Your task to perform on an android device: turn off sleep mode Image 0: 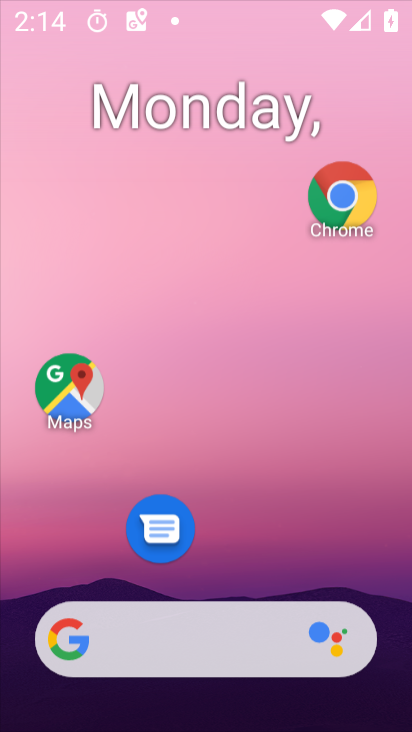
Step 0: press home button
Your task to perform on an android device: turn off sleep mode Image 1: 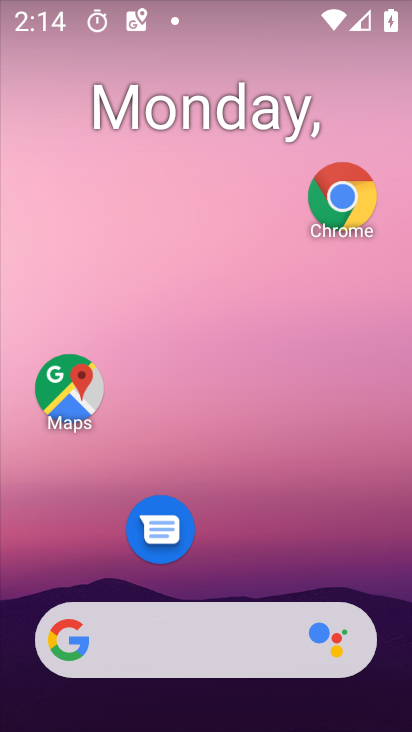
Step 1: drag from (265, 588) to (257, 13)
Your task to perform on an android device: turn off sleep mode Image 2: 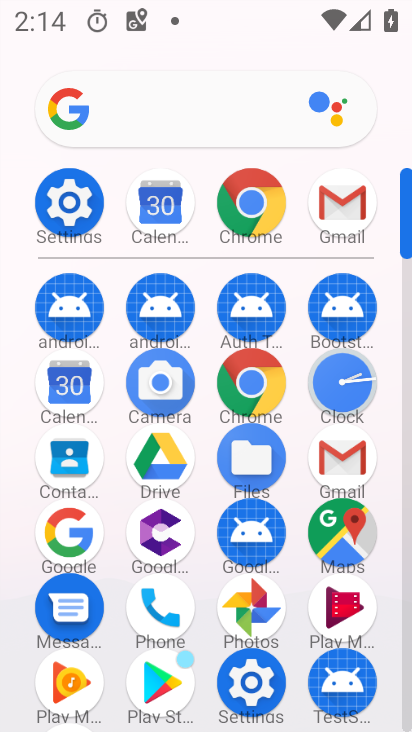
Step 2: click (76, 205)
Your task to perform on an android device: turn off sleep mode Image 3: 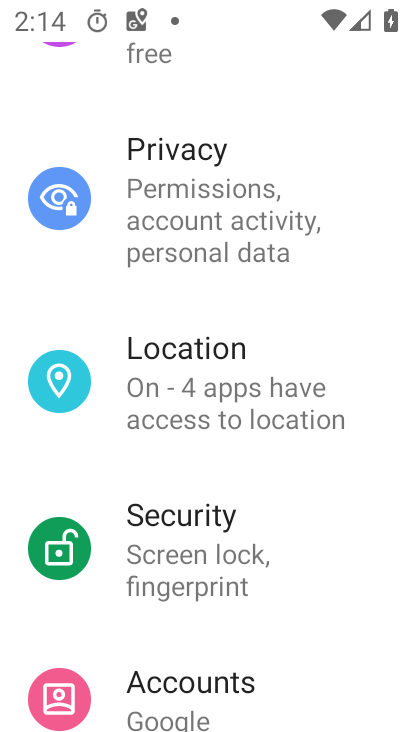
Step 3: drag from (201, 584) to (168, 726)
Your task to perform on an android device: turn off sleep mode Image 4: 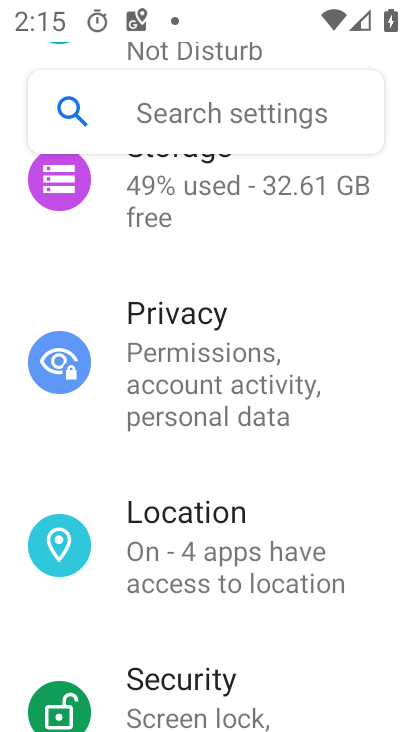
Step 4: drag from (52, 294) to (91, 631)
Your task to perform on an android device: turn off sleep mode Image 5: 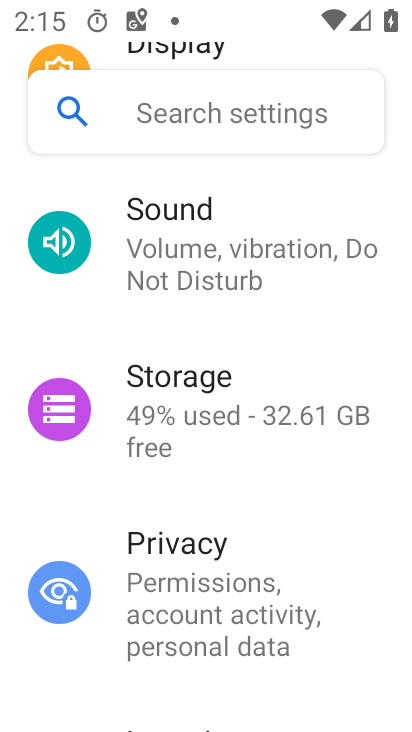
Step 5: drag from (164, 213) to (184, 639)
Your task to perform on an android device: turn off sleep mode Image 6: 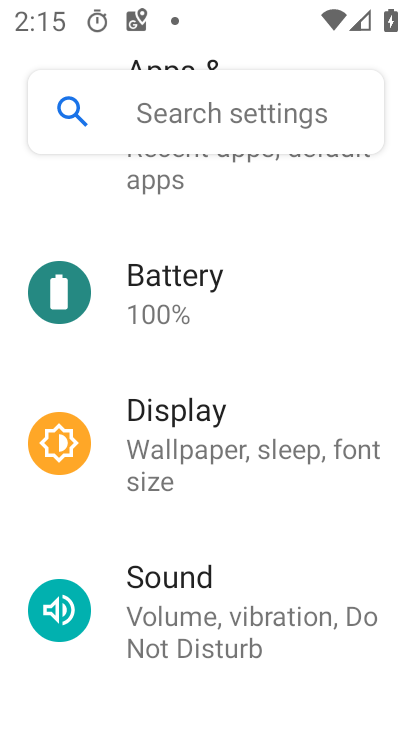
Step 6: click (174, 477)
Your task to perform on an android device: turn off sleep mode Image 7: 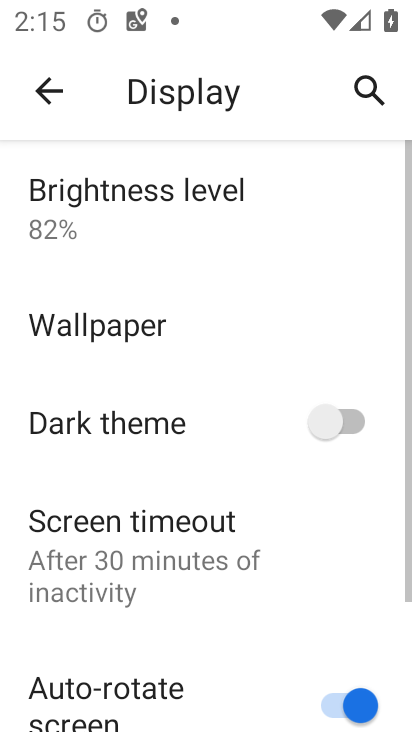
Step 7: task complete